Your task to perform on an android device: turn off translation in the chrome app Image 0: 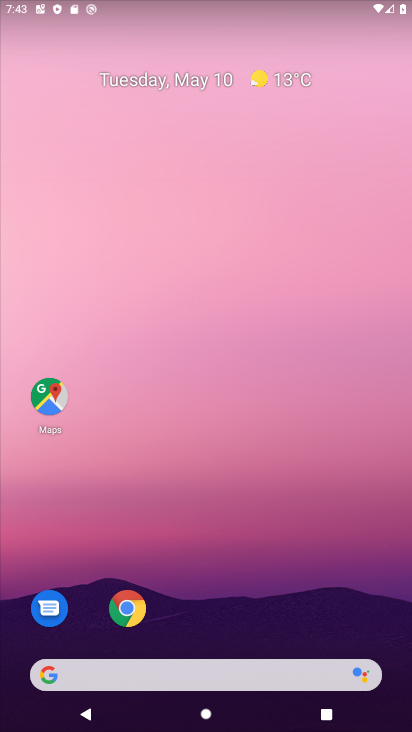
Step 0: click (131, 620)
Your task to perform on an android device: turn off translation in the chrome app Image 1: 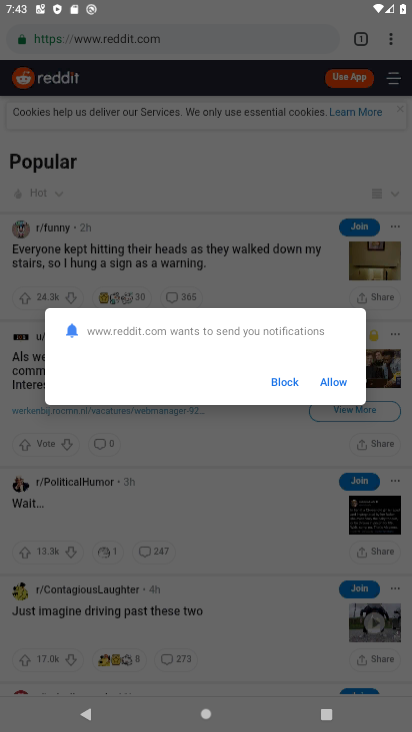
Step 1: click (301, 385)
Your task to perform on an android device: turn off translation in the chrome app Image 2: 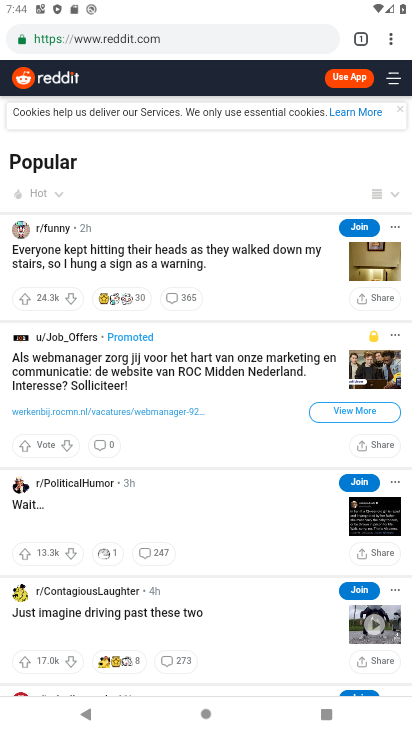
Step 2: click (393, 38)
Your task to perform on an android device: turn off translation in the chrome app Image 3: 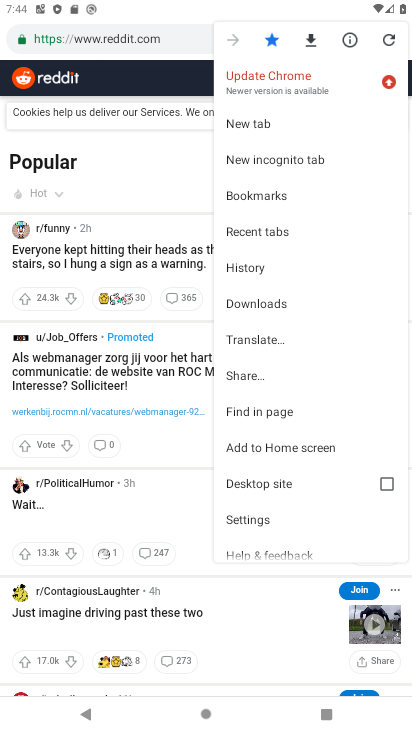
Step 3: click (256, 525)
Your task to perform on an android device: turn off translation in the chrome app Image 4: 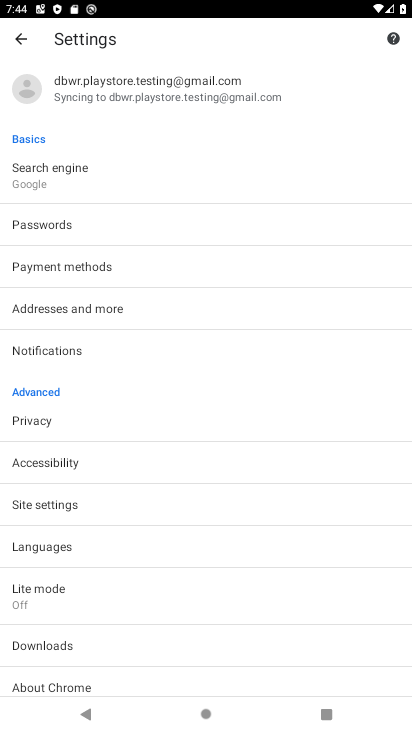
Step 4: click (60, 542)
Your task to perform on an android device: turn off translation in the chrome app Image 5: 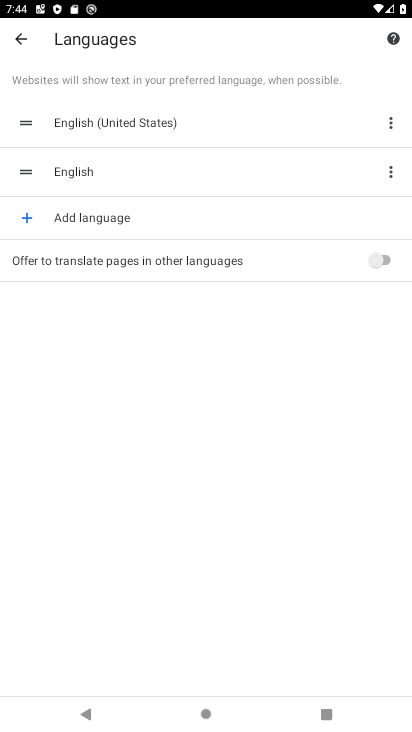
Step 5: task complete